Your task to perform on an android device: toggle pop-ups in chrome Image 0: 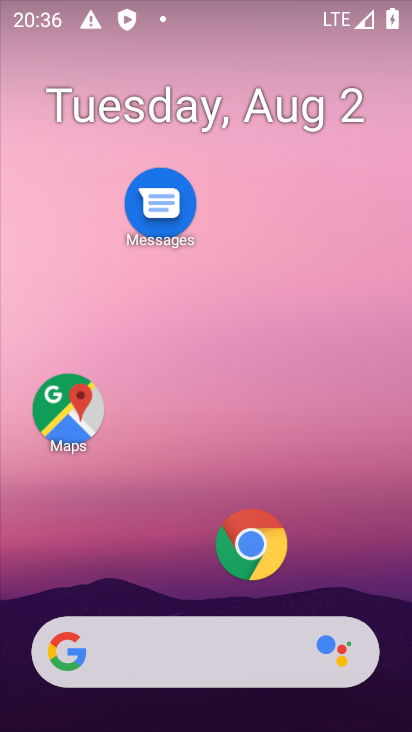
Step 0: click (242, 558)
Your task to perform on an android device: toggle pop-ups in chrome Image 1: 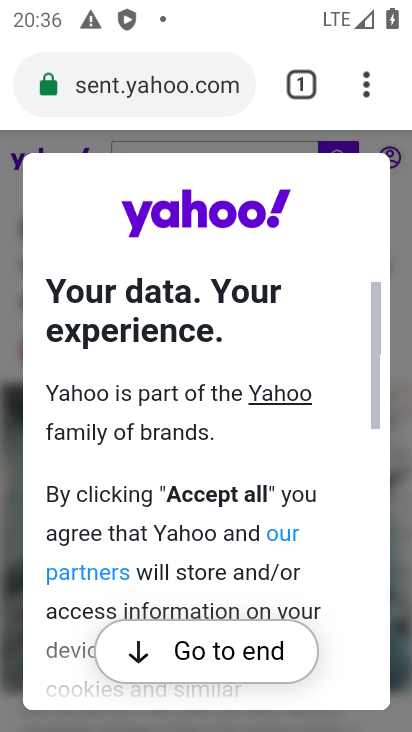
Step 1: click (376, 86)
Your task to perform on an android device: toggle pop-ups in chrome Image 2: 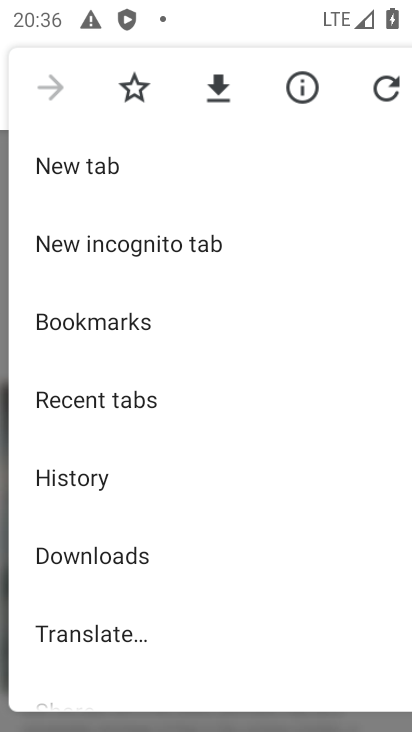
Step 2: drag from (184, 617) to (224, 212)
Your task to perform on an android device: toggle pop-ups in chrome Image 3: 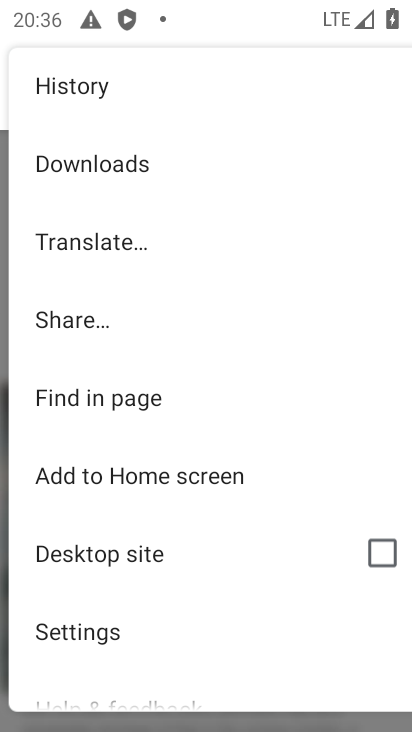
Step 3: click (90, 637)
Your task to perform on an android device: toggle pop-ups in chrome Image 4: 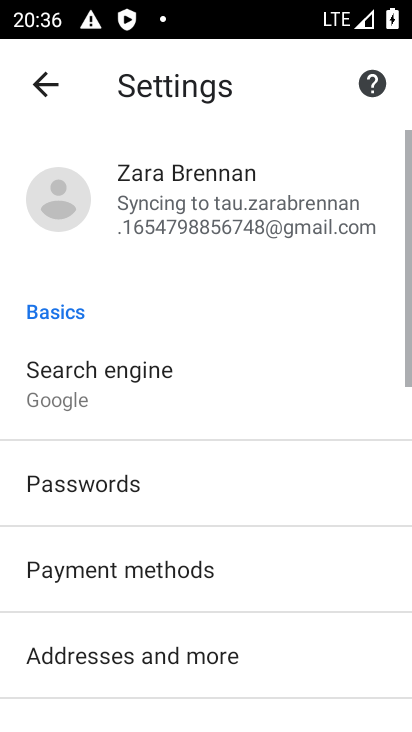
Step 4: drag from (96, 632) to (135, 175)
Your task to perform on an android device: toggle pop-ups in chrome Image 5: 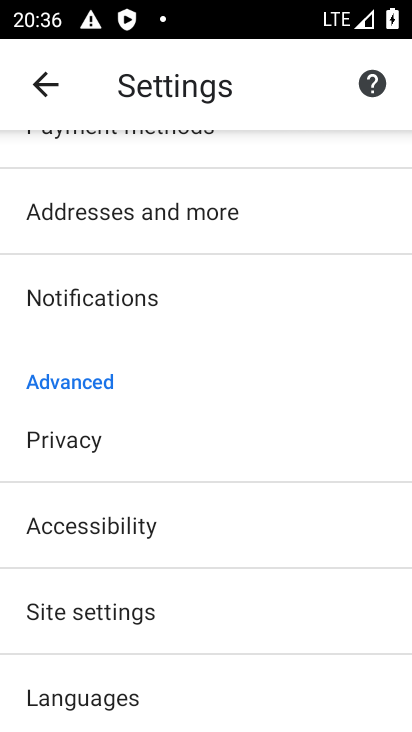
Step 5: click (137, 609)
Your task to perform on an android device: toggle pop-ups in chrome Image 6: 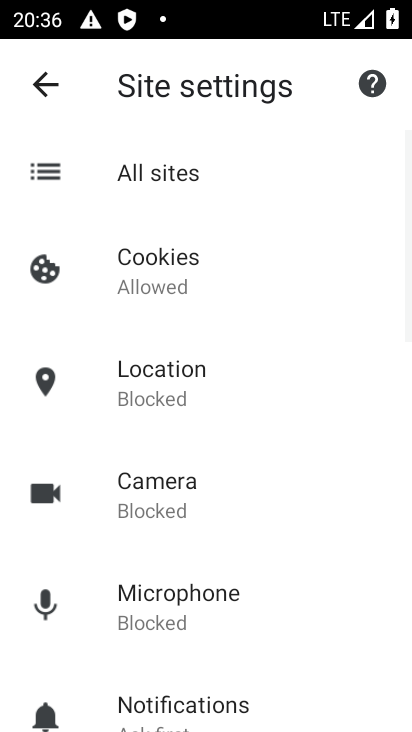
Step 6: drag from (195, 621) to (253, 164)
Your task to perform on an android device: toggle pop-ups in chrome Image 7: 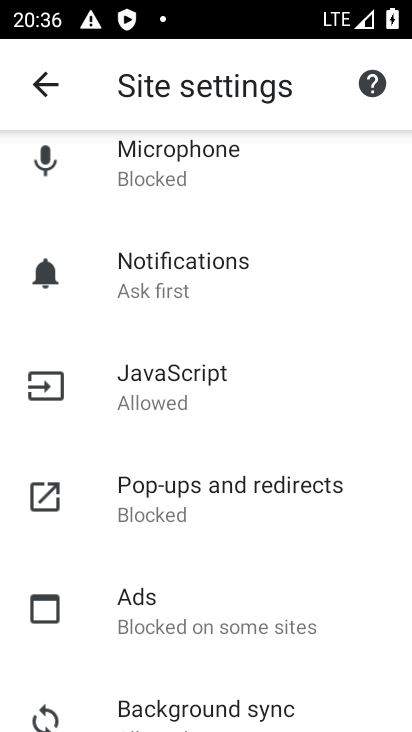
Step 7: click (163, 471)
Your task to perform on an android device: toggle pop-ups in chrome Image 8: 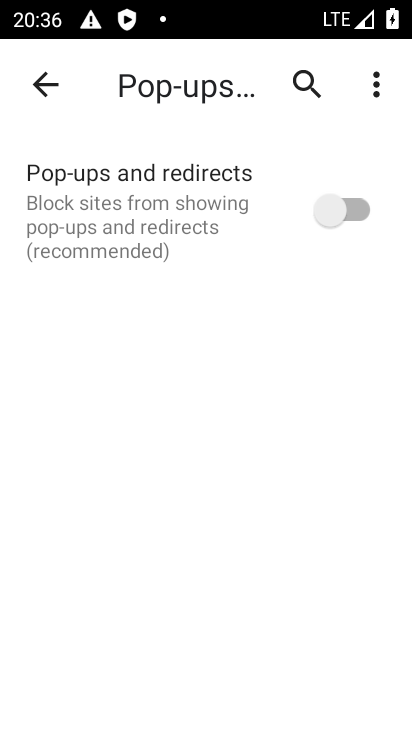
Step 8: click (358, 213)
Your task to perform on an android device: toggle pop-ups in chrome Image 9: 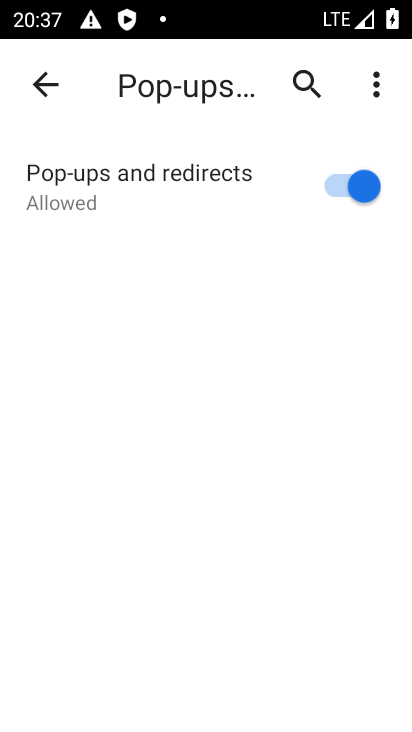
Step 9: task complete